Your task to perform on an android device: Find coffee shops on Maps Image 0: 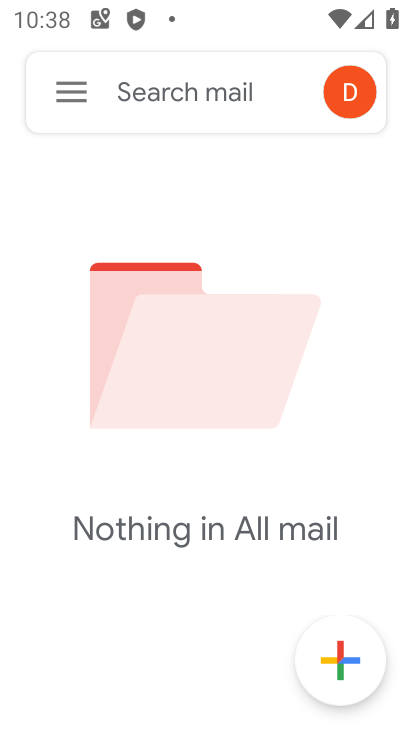
Step 0: press back button
Your task to perform on an android device: Find coffee shops on Maps Image 1: 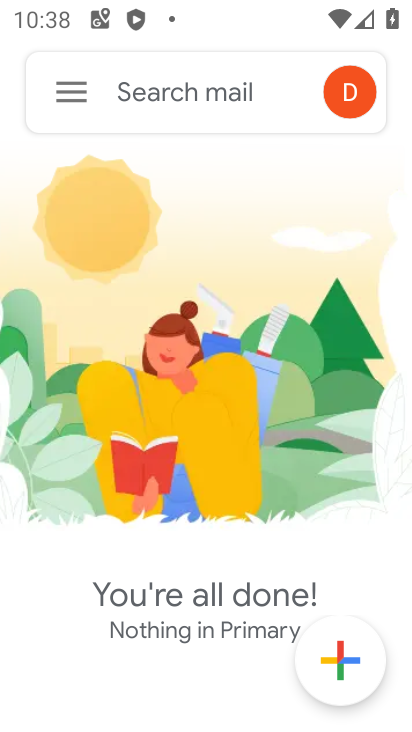
Step 1: press back button
Your task to perform on an android device: Find coffee shops on Maps Image 2: 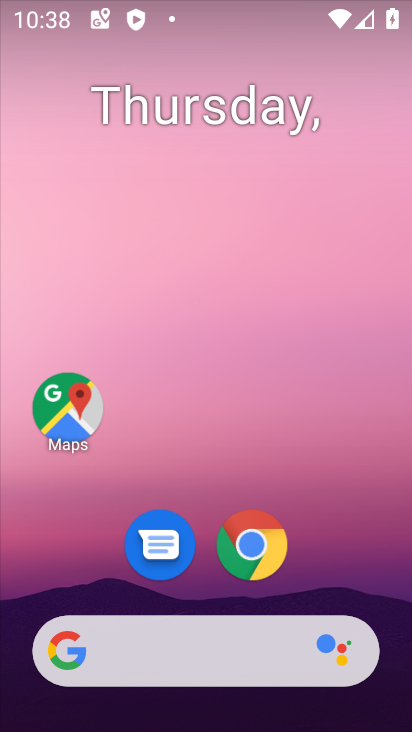
Step 2: click (67, 409)
Your task to perform on an android device: Find coffee shops on Maps Image 3: 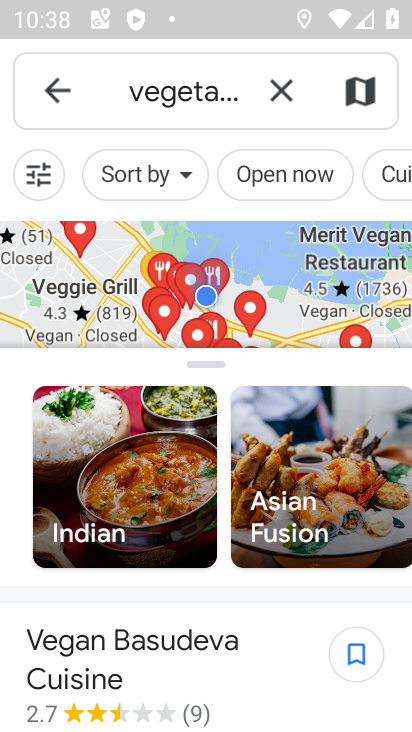
Step 3: click (284, 88)
Your task to perform on an android device: Find coffee shops on Maps Image 4: 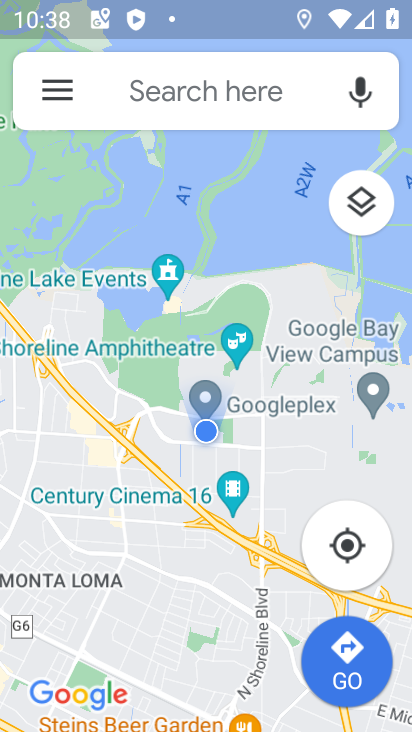
Step 4: click (235, 98)
Your task to perform on an android device: Find coffee shops on Maps Image 5: 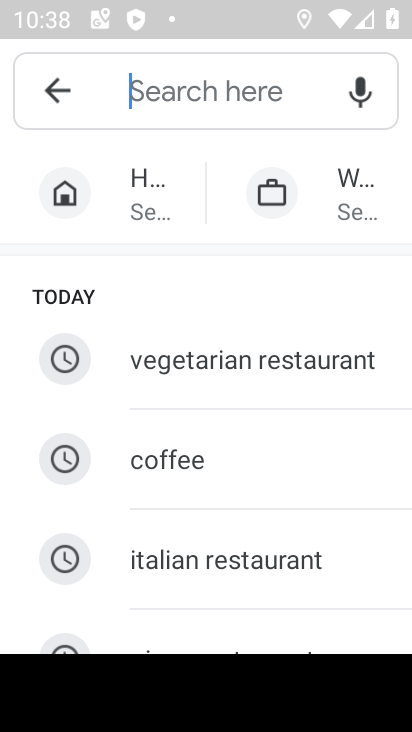
Step 5: type "coffee shops"
Your task to perform on an android device: Find coffee shops on Maps Image 6: 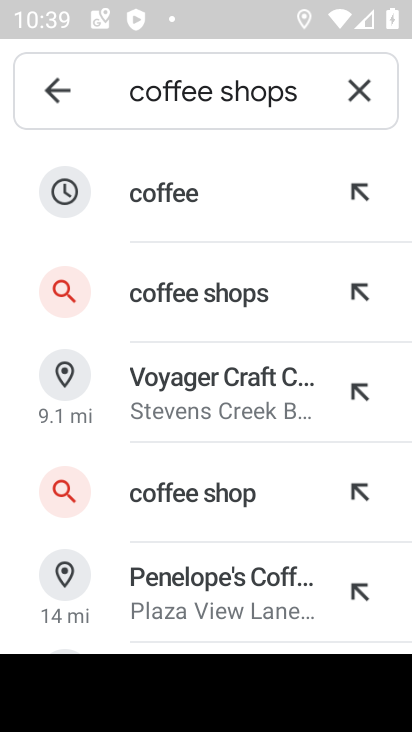
Step 6: click (235, 296)
Your task to perform on an android device: Find coffee shops on Maps Image 7: 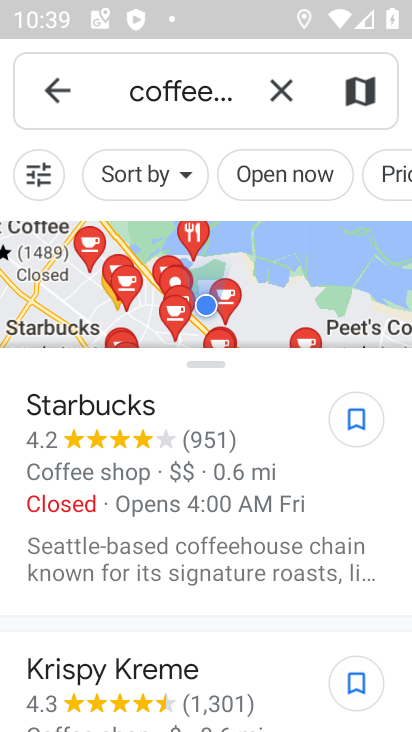
Step 7: task complete